Your task to perform on an android device: Open Chrome and go to settings Image 0: 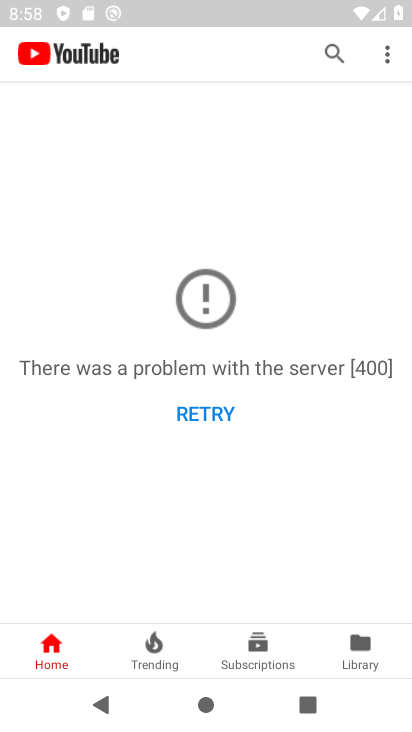
Step 0: press home button
Your task to perform on an android device: Open Chrome and go to settings Image 1: 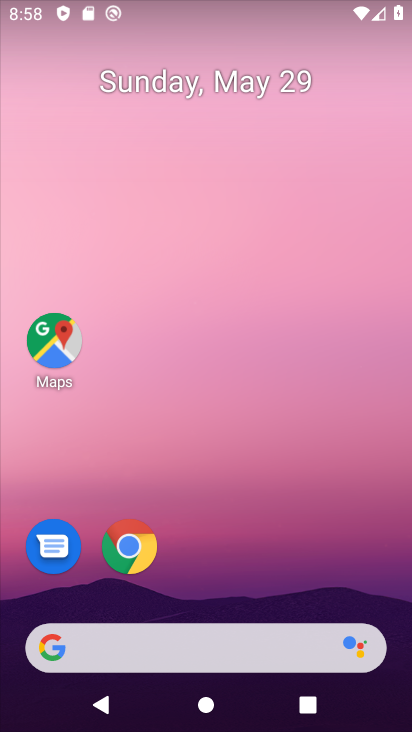
Step 1: click (132, 547)
Your task to perform on an android device: Open Chrome and go to settings Image 2: 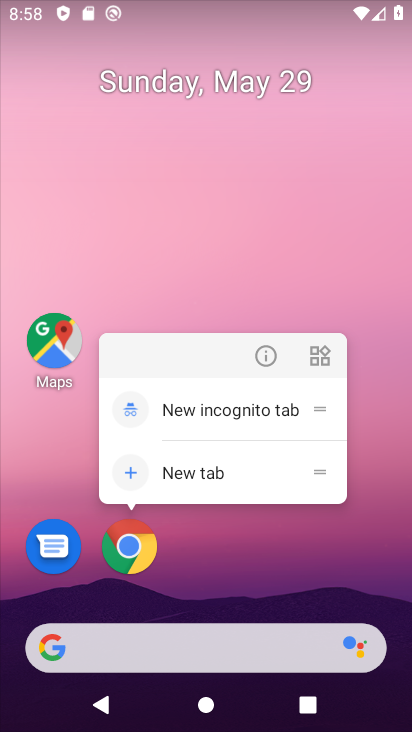
Step 2: click (133, 569)
Your task to perform on an android device: Open Chrome and go to settings Image 3: 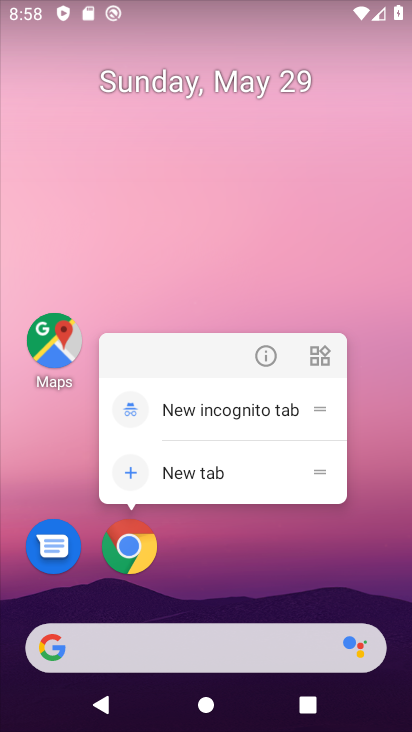
Step 3: click (136, 557)
Your task to perform on an android device: Open Chrome and go to settings Image 4: 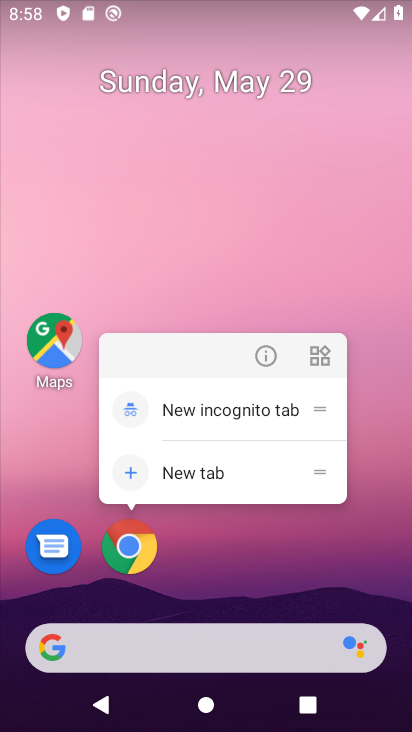
Step 4: click (139, 554)
Your task to perform on an android device: Open Chrome and go to settings Image 5: 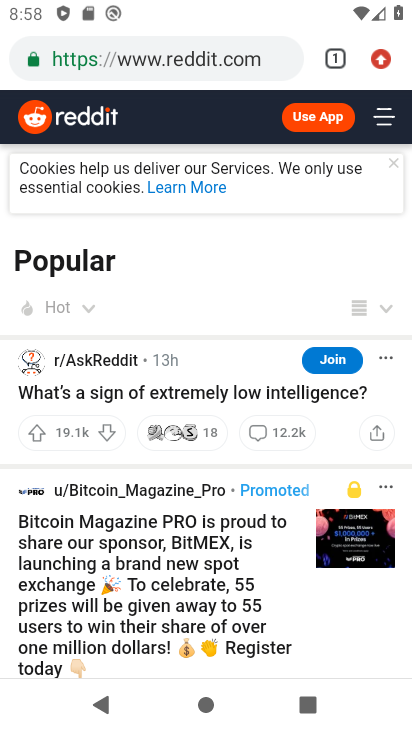
Step 5: task complete